Your task to perform on an android device: Turn on the flashlight Image 0: 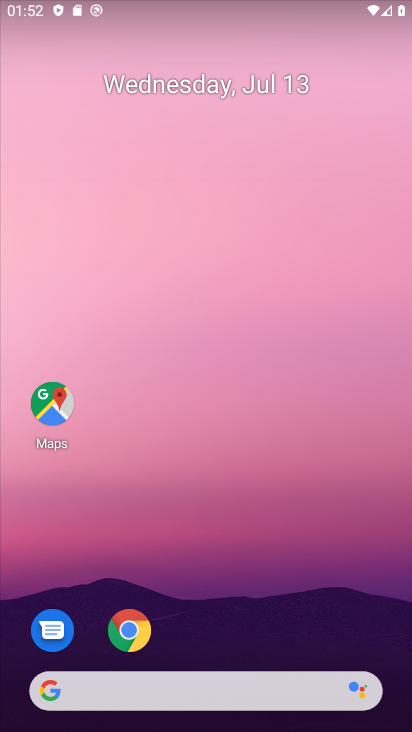
Step 0: drag from (210, 644) to (220, 203)
Your task to perform on an android device: Turn on the flashlight Image 1: 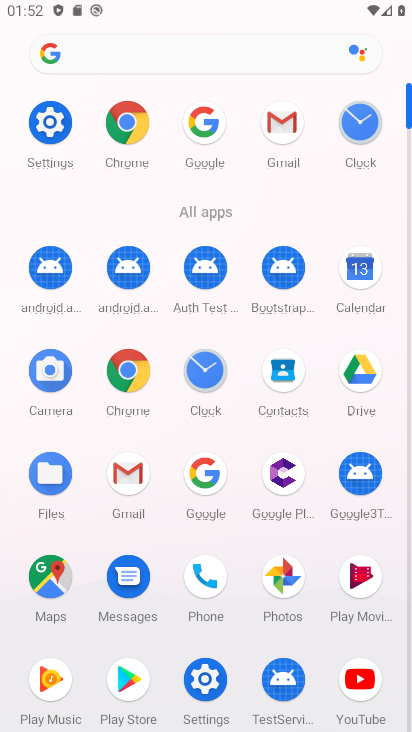
Step 1: click (69, 134)
Your task to perform on an android device: Turn on the flashlight Image 2: 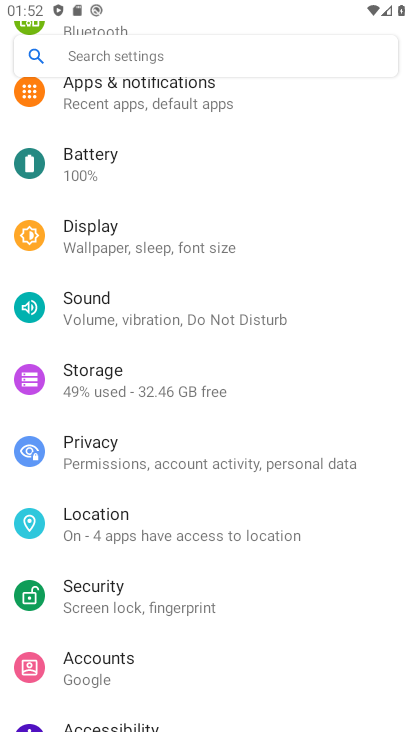
Step 2: task complete